Your task to perform on an android device: open device folders in google photos Image 0: 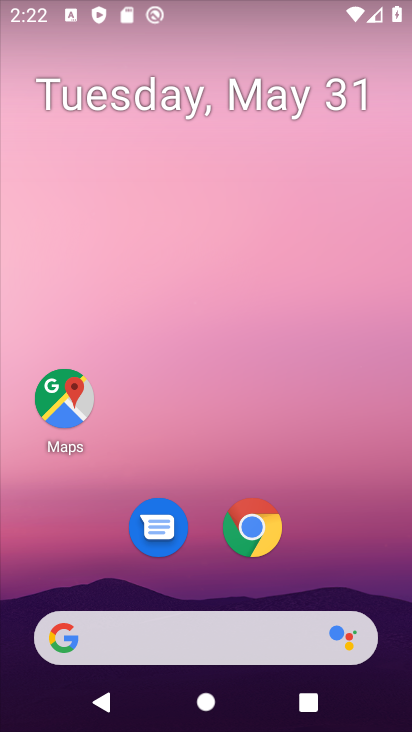
Step 0: drag from (380, 487) to (362, 138)
Your task to perform on an android device: open device folders in google photos Image 1: 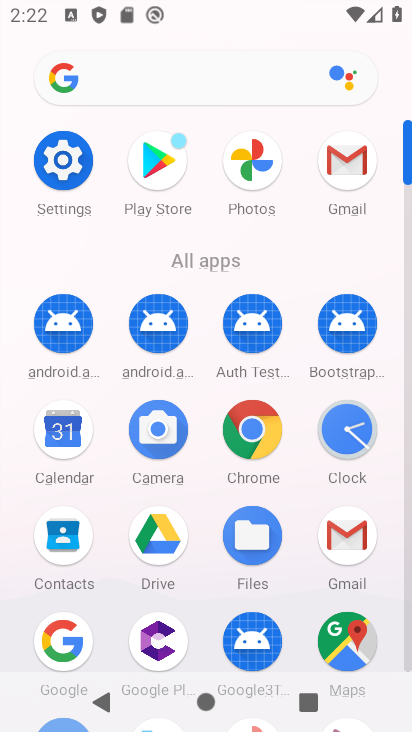
Step 1: click (407, 523)
Your task to perform on an android device: open device folders in google photos Image 2: 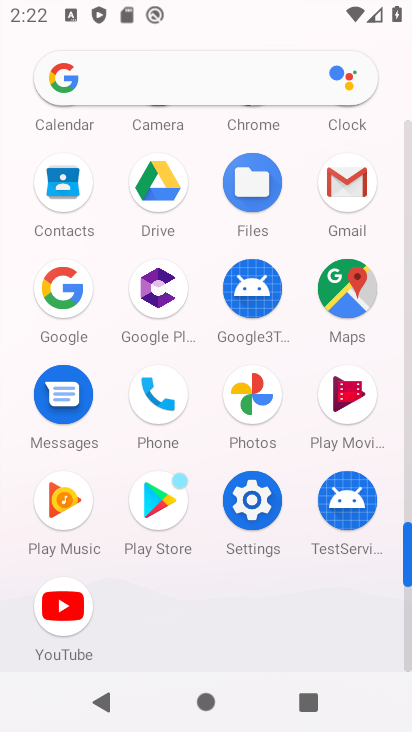
Step 2: click (252, 392)
Your task to perform on an android device: open device folders in google photos Image 3: 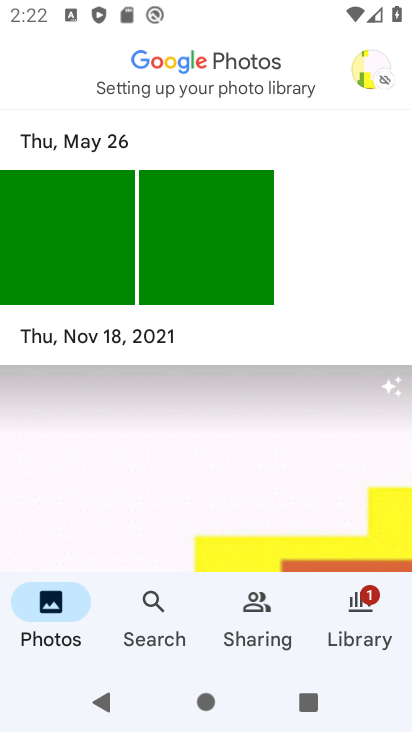
Step 3: click (360, 596)
Your task to perform on an android device: open device folders in google photos Image 4: 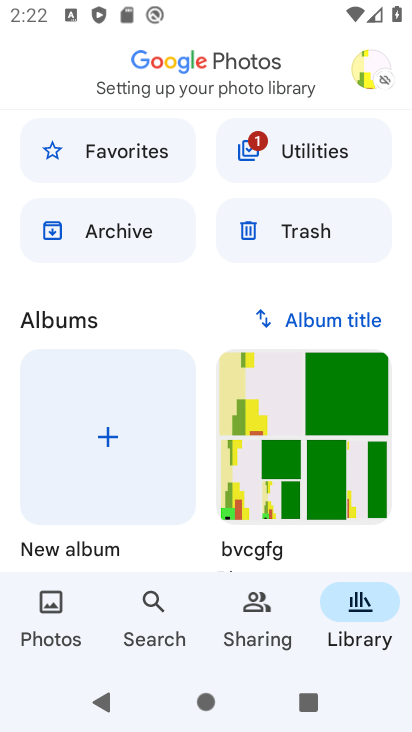
Step 4: task complete